Your task to perform on an android device: toggle improve location accuracy Image 0: 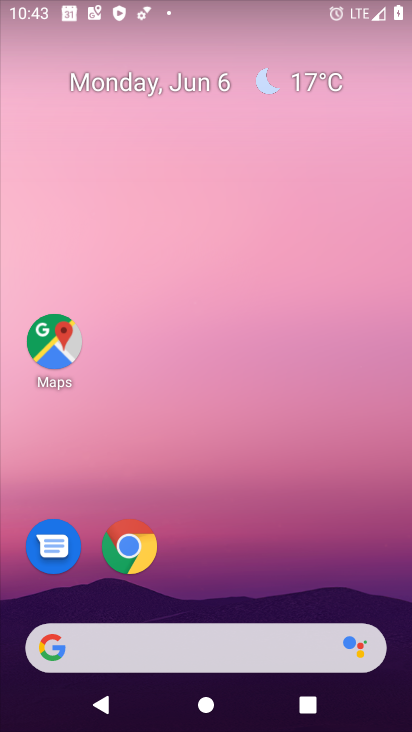
Step 0: drag from (212, 589) to (253, 8)
Your task to perform on an android device: toggle improve location accuracy Image 1: 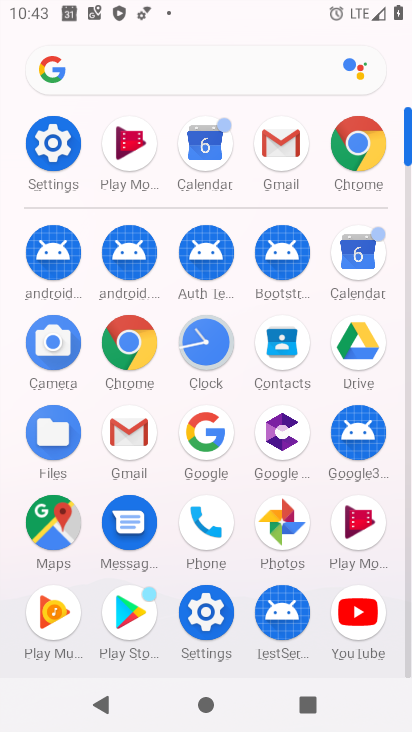
Step 1: click (58, 150)
Your task to perform on an android device: toggle improve location accuracy Image 2: 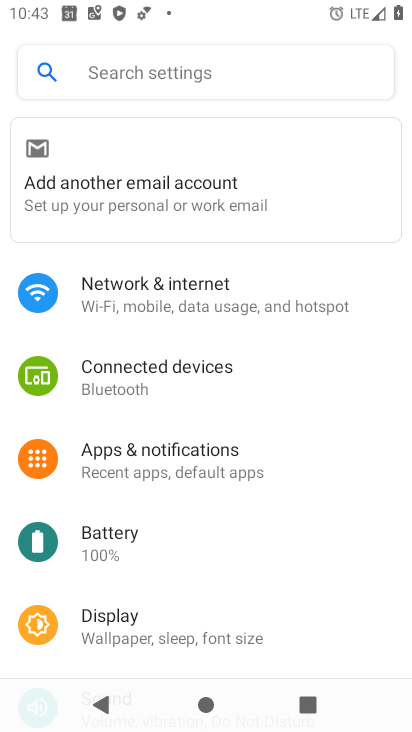
Step 2: drag from (189, 543) to (228, 150)
Your task to perform on an android device: toggle improve location accuracy Image 3: 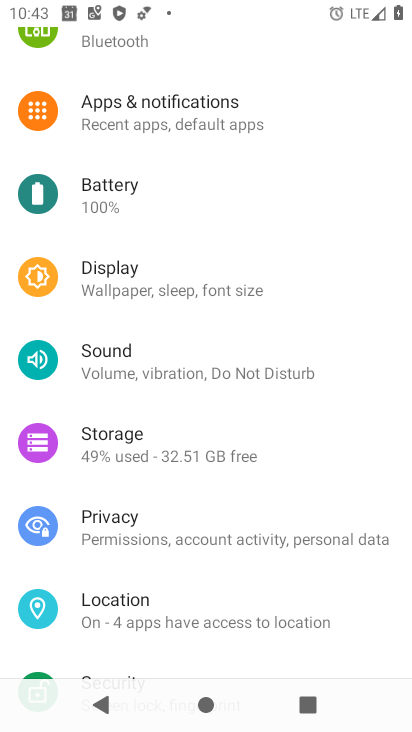
Step 3: click (120, 614)
Your task to perform on an android device: toggle improve location accuracy Image 4: 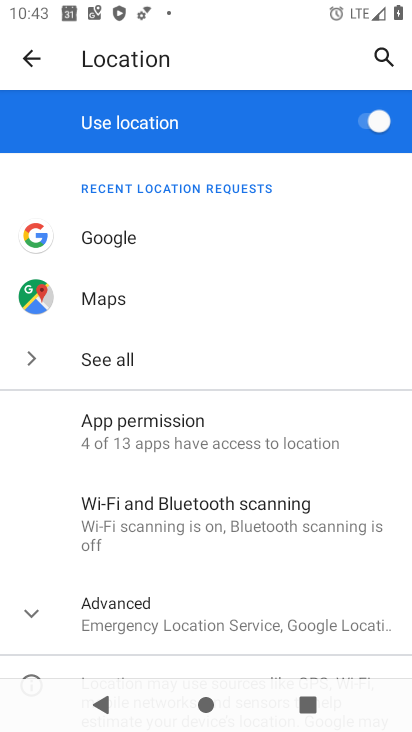
Step 4: drag from (215, 538) to (285, 192)
Your task to perform on an android device: toggle improve location accuracy Image 5: 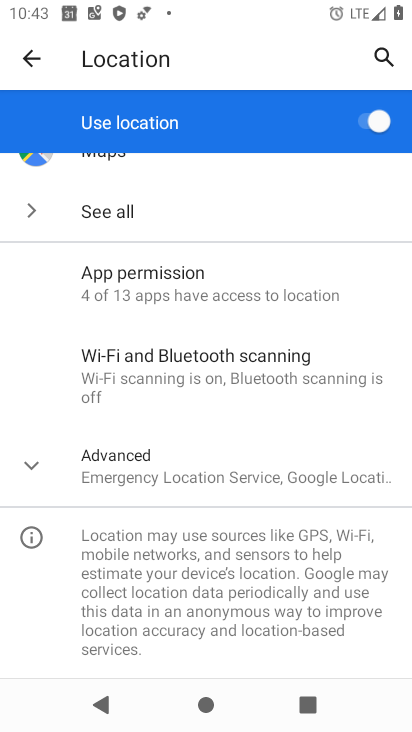
Step 5: click (126, 467)
Your task to perform on an android device: toggle improve location accuracy Image 6: 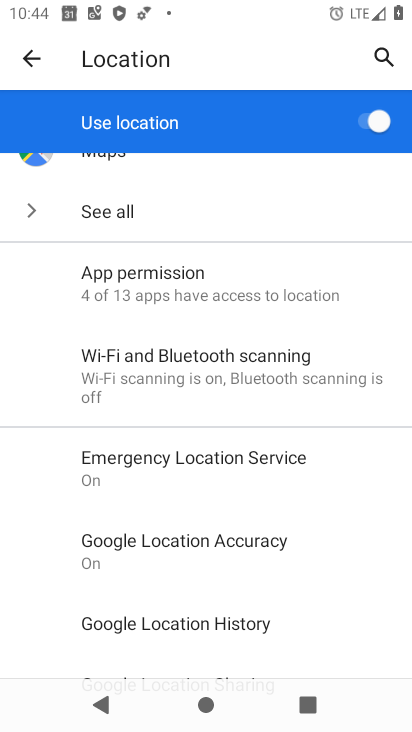
Step 6: click (218, 556)
Your task to perform on an android device: toggle improve location accuracy Image 7: 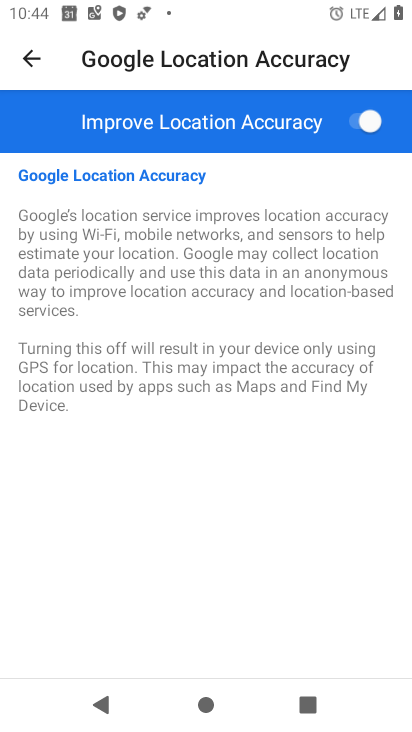
Step 7: click (336, 120)
Your task to perform on an android device: toggle improve location accuracy Image 8: 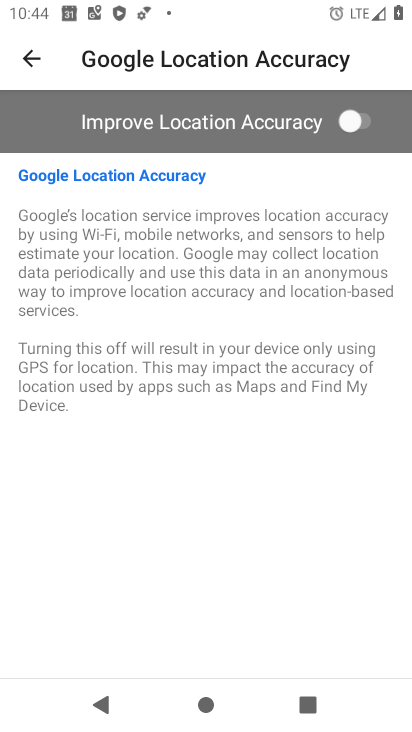
Step 8: task complete